Your task to perform on an android device: make emails show in primary in the gmail app Image 0: 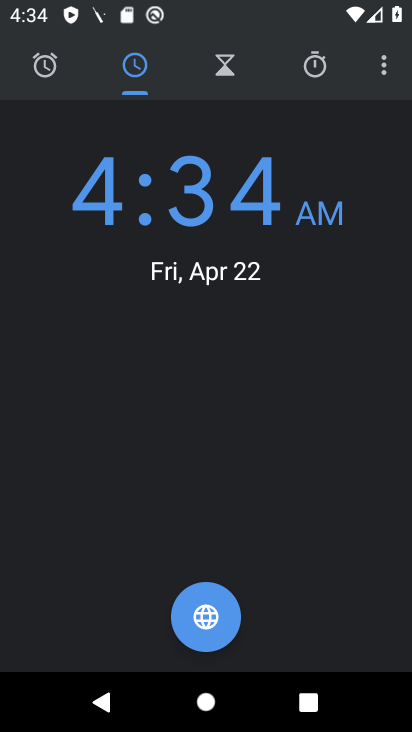
Step 0: press home button
Your task to perform on an android device: make emails show in primary in the gmail app Image 1: 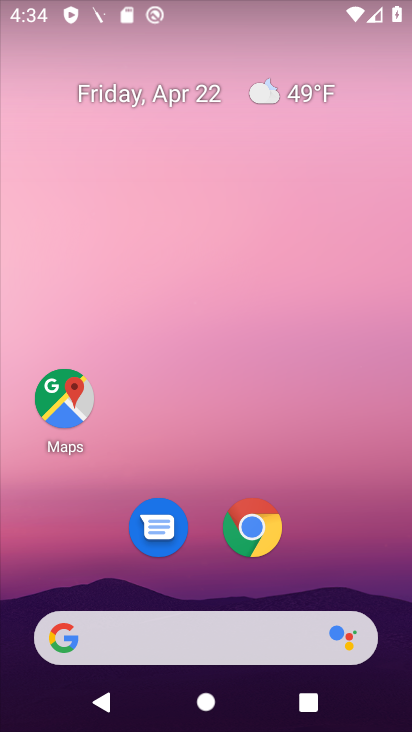
Step 1: drag from (320, 505) to (225, 168)
Your task to perform on an android device: make emails show in primary in the gmail app Image 2: 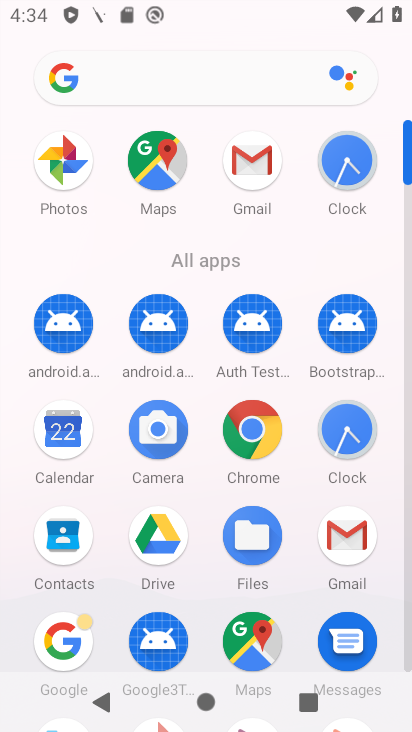
Step 2: click (345, 538)
Your task to perform on an android device: make emails show in primary in the gmail app Image 3: 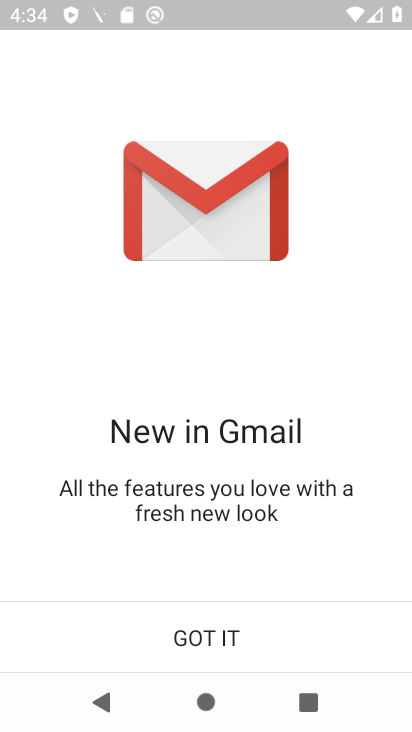
Step 3: click (207, 632)
Your task to perform on an android device: make emails show in primary in the gmail app Image 4: 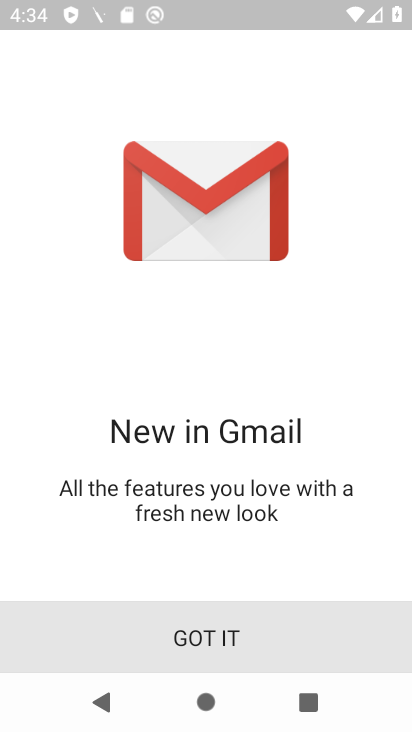
Step 4: click (206, 633)
Your task to perform on an android device: make emails show in primary in the gmail app Image 5: 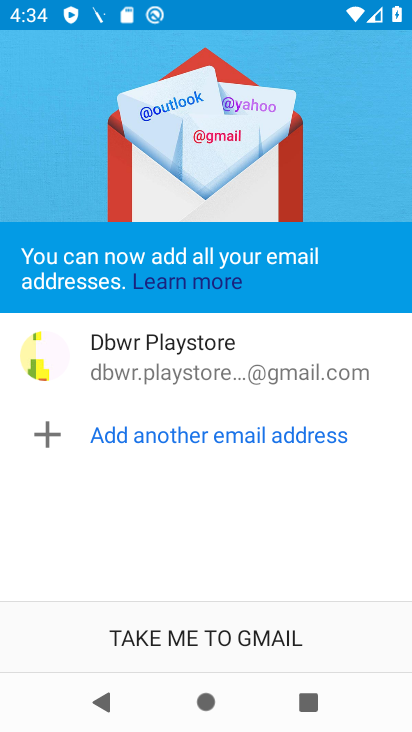
Step 5: click (206, 633)
Your task to perform on an android device: make emails show in primary in the gmail app Image 6: 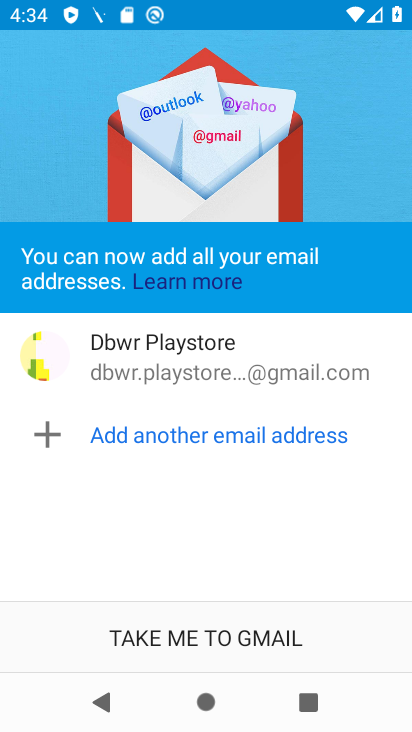
Step 6: click (205, 634)
Your task to perform on an android device: make emails show in primary in the gmail app Image 7: 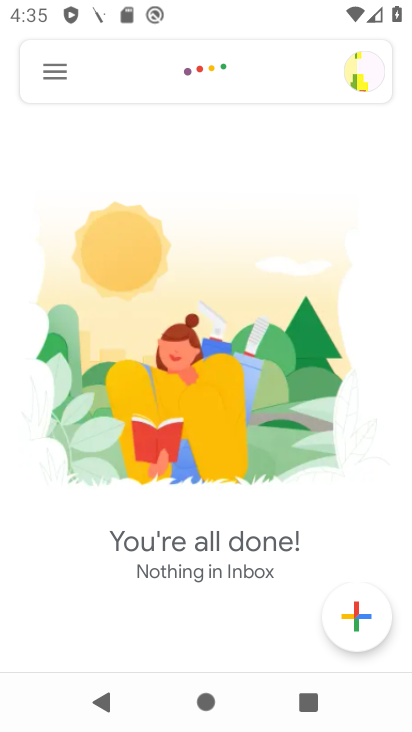
Step 7: click (54, 72)
Your task to perform on an android device: make emails show in primary in the gmail app Image 8: 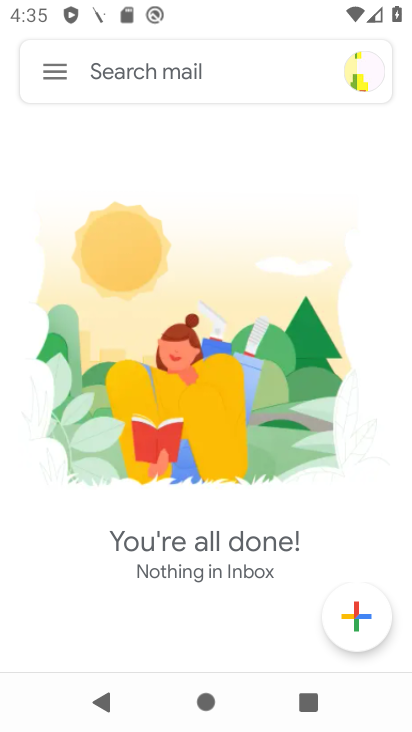
Step 8: click (60, 75)
Your task to perform on an android device: make emails show in primary in the gmail app Image 9: 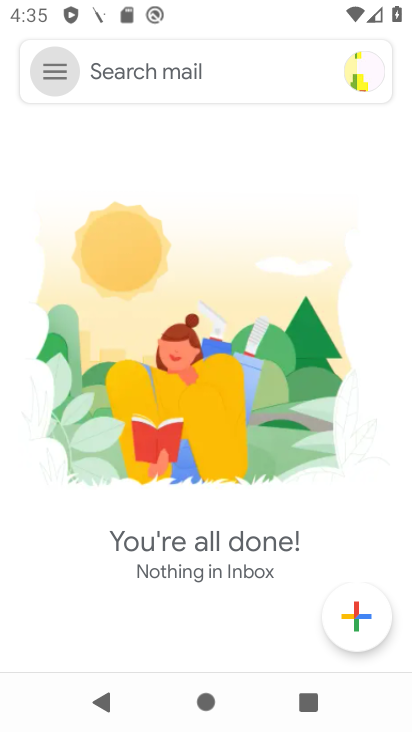
Step 9: click (60, 75)
Your task to perform on an android device: make emails show in primary in the gmail app Image 10: 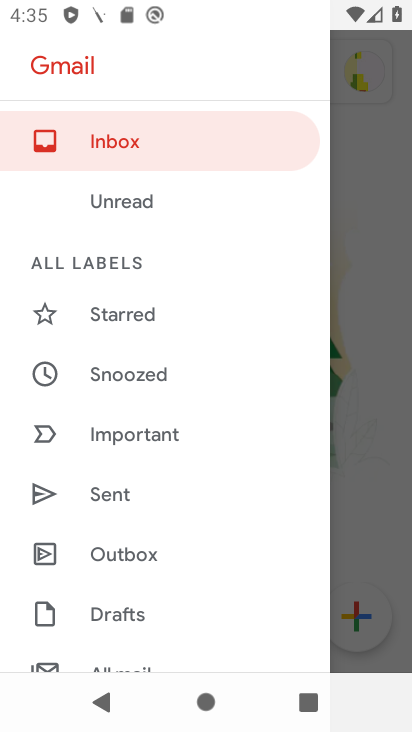
Step 10: drag from (210, 576) to (131, 88)
Your task to perform on an android device: make emails show in primary in the gmail app Image 11: 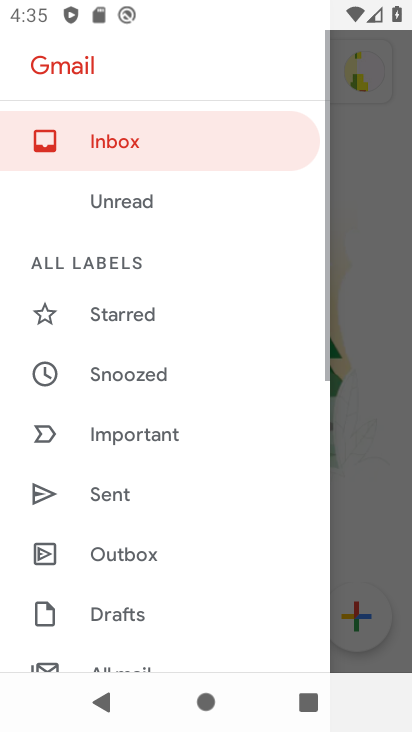
Step 11: drag from (201, 420) to (164, 79)
Your task to perform on an android device: make emails show in primary in the gmail app Image 12: 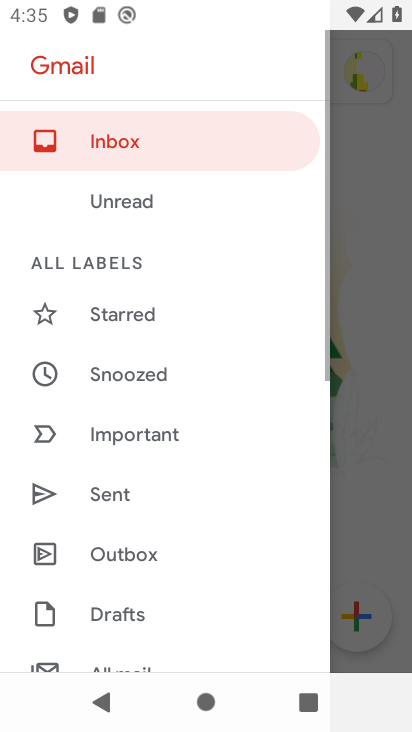
Step 12: drag from (209, 413) to (156, 140)
Your task to perform on an android device: make emails show in primary in the gmail app Image 13: 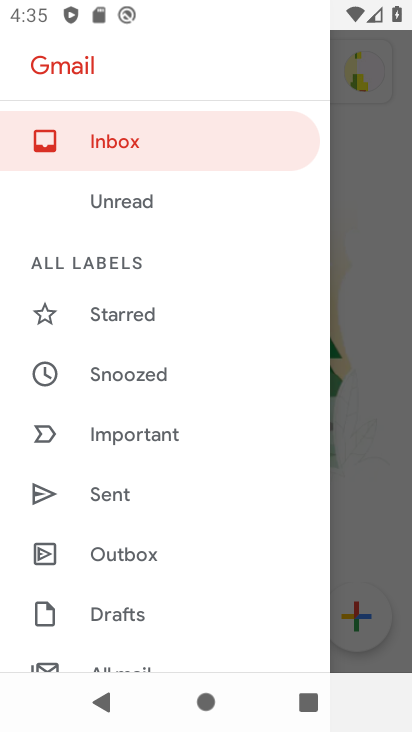
Step 13: drag from (165, 470) to (170, 44)
Your task to perform on an android device: make emails show in primary in the gmail app Image 14: 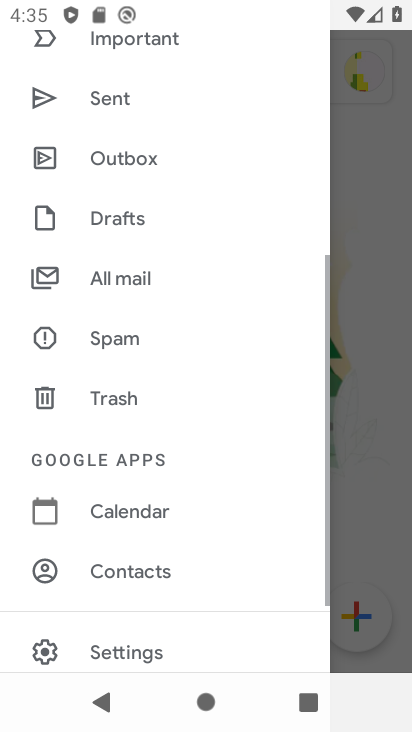
Step 14: drag from (159, 444) to (133, 89)
Your task to perform on an android device: make emails show in primary in the gmail app Image 15: 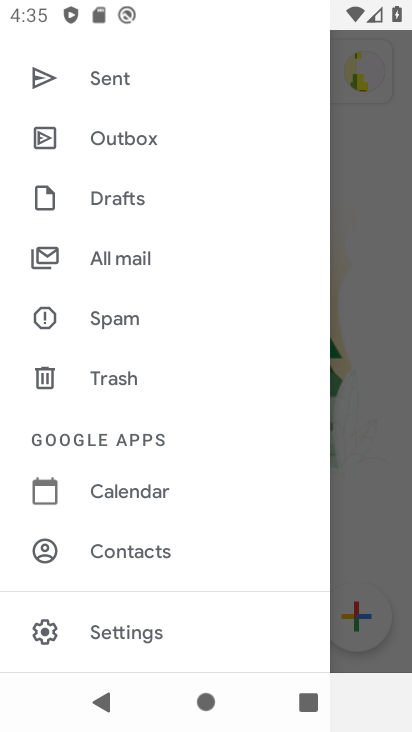
Step 15: click (101, 632)
Your task to perform on an android device: make emails show in primary in the gmail app Image 16: 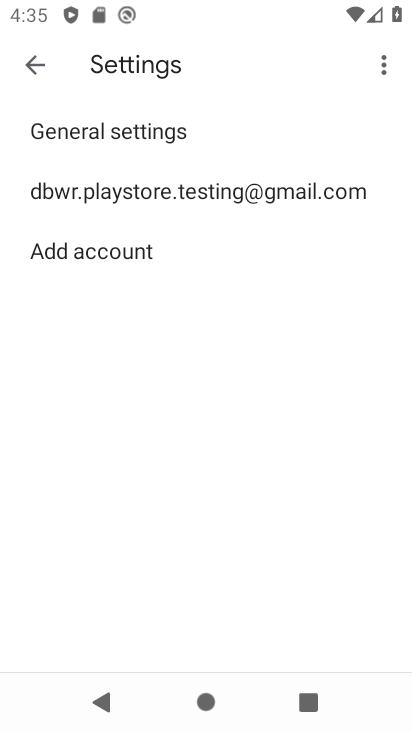
Step 16: click (134, 181)
Your task to perform on an android device: make emails show in primary in the gmail app Image 17: 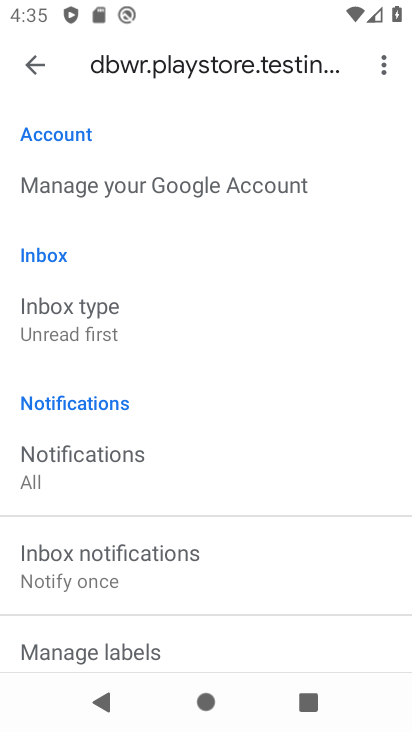
Step 17: task complete